Your task to perform on an android device: Go to battery settings Image 0: 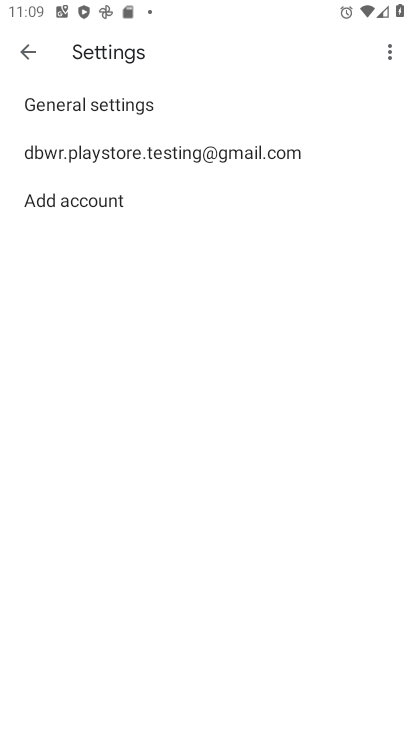
Step 0: press home button
Your task to perform on an android device: Go to battery settings Image 1: 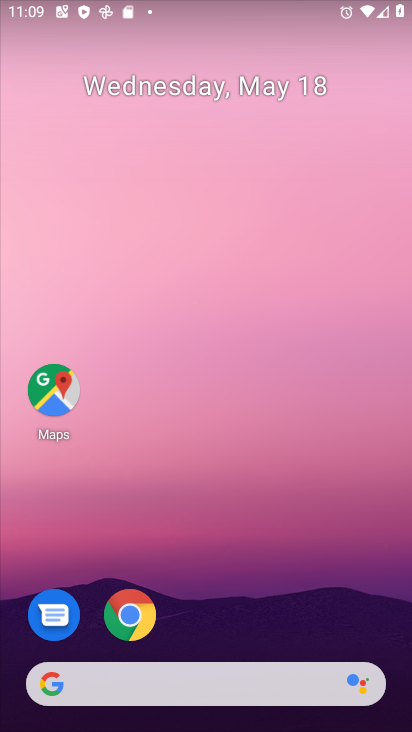
Step 1: drag from (184, 656) to (176, 204)
Your task to perform on an android device: Go to battery settings Image 2: 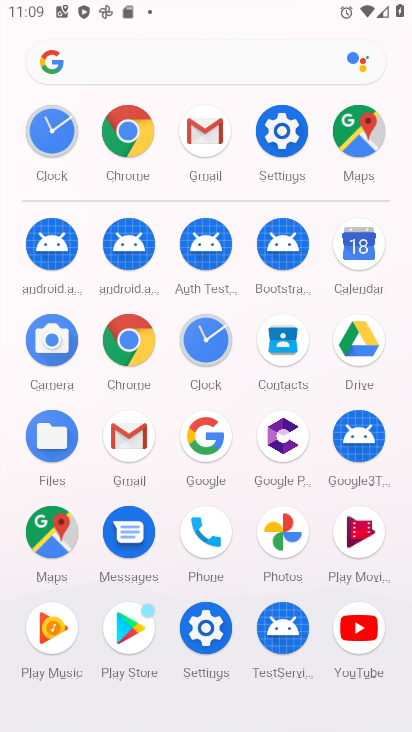
Step 2: click (279, 139)
Your task to perform on an android device: Go to battery settings Image 3: 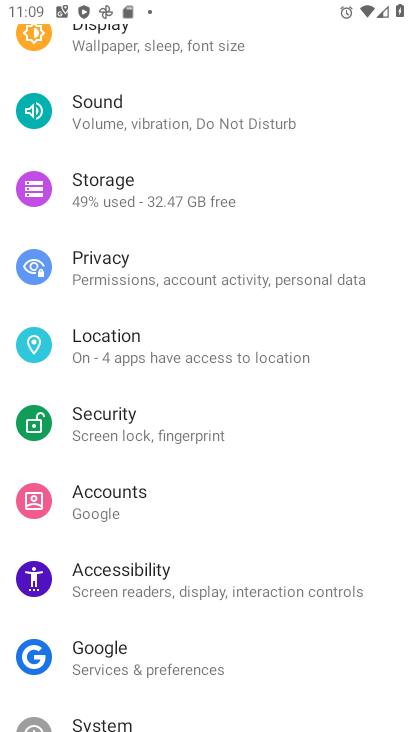
Step 3: drag from (105, 54) to (148, 504)
Your task to perform on an android device: Go to battery settings Image 4: 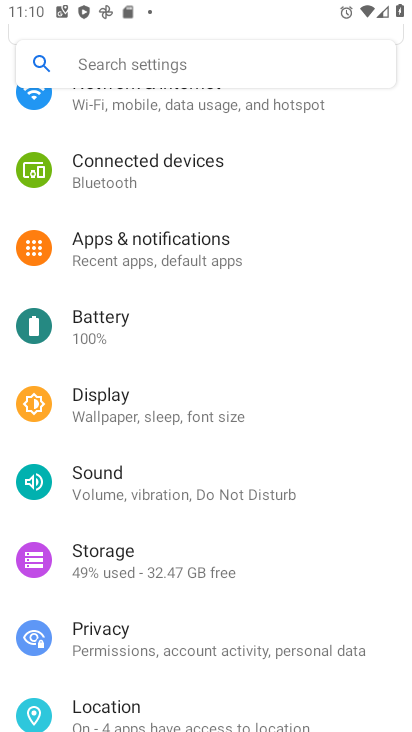
Step 4: click (113, 332)
Your task to perform on an android device: Go to battery settings Image 5: 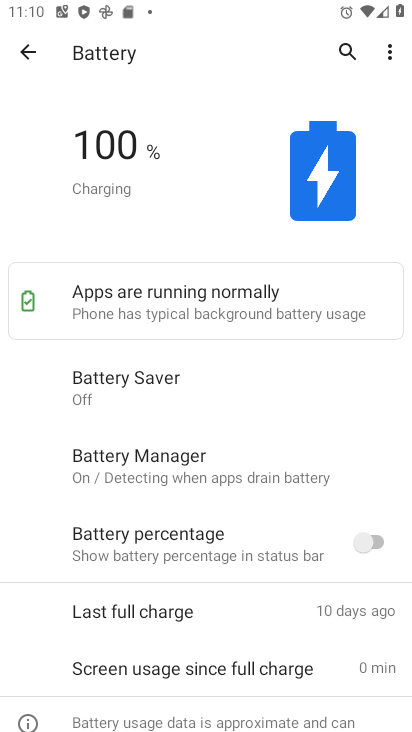
Step 5: task complete